Your task to perform on an android device: turn vacation reply on in the gmail app Image 0: 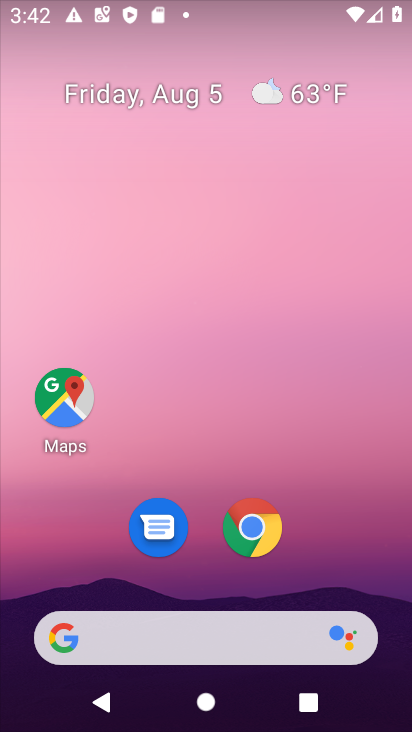
Step 0: drag from (221, 409) to (198, 161)
Your task to perform on an android device: turn vacation reply on in the gmail app Image 1: 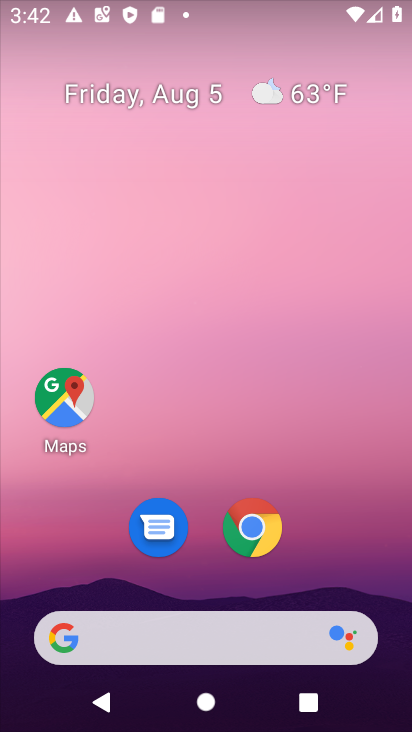
Step 1: drag from (197, 597) to (209, 175)
Your task to perform on an android device: turn vacation reply on in the gmail app Image 2: 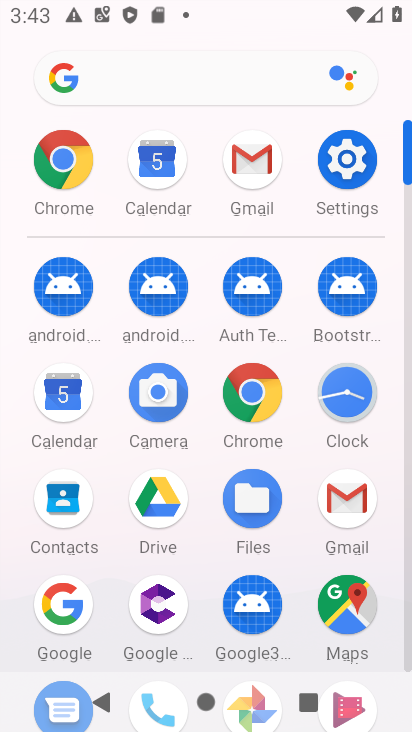
Step 2: click (356, 494)
Your task to perform on an android device: turn vacation reply on in the gmail app Image 3: 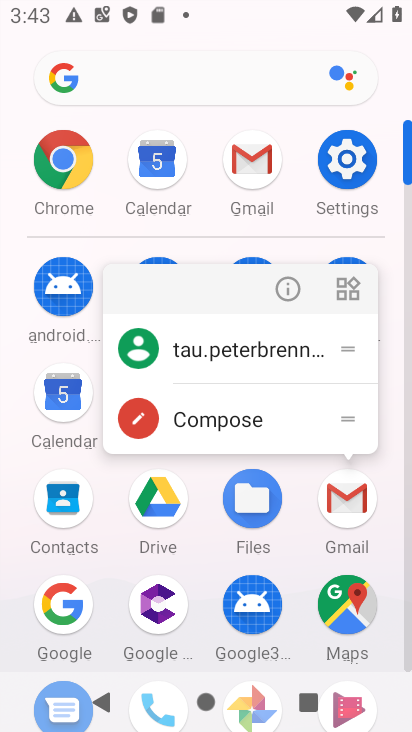
Step 3: click (353, 490)
Your task to perform on an android device: turn vacation reply on in the gmail app Image 4: 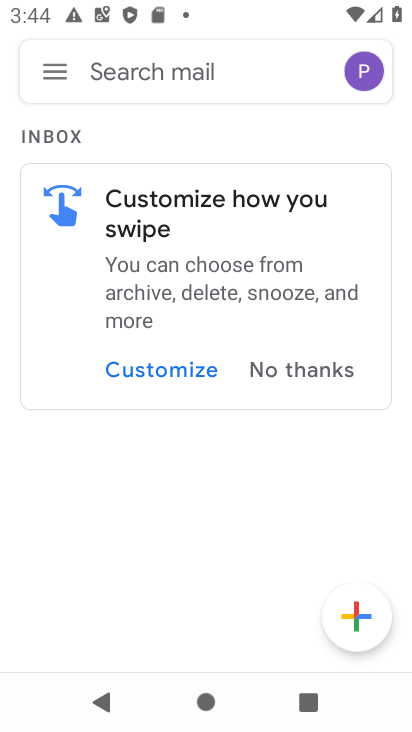
Step 4: click (68, 69)
Your task to perform on an android device: turn vacation reply on in the gmail app Image 5: 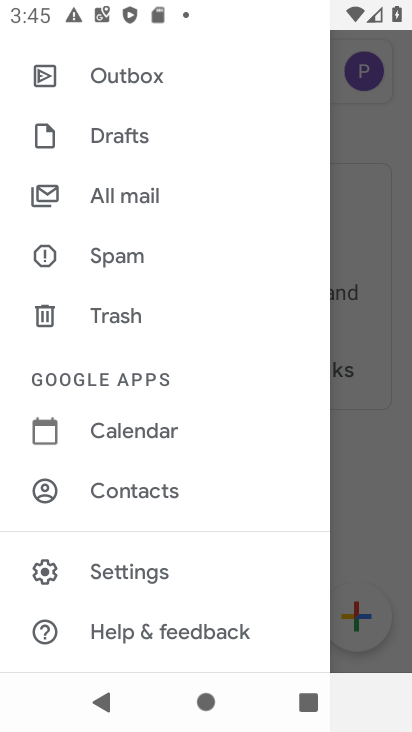
Step 5: click (112, 571)
Your task to perform on an android device: turn vacation reply on in the gmail app Image 6: 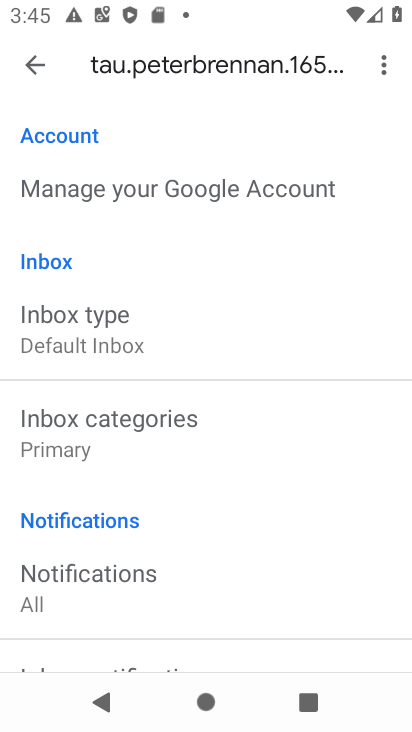
Step 6: drag from (103, 616) to (100, 353)
Your task to perform on an android device: turn vacation reply on in the gmail app Image 7: 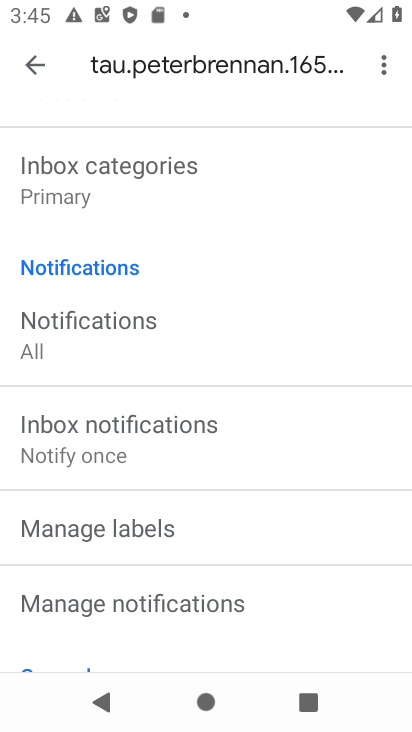
Step 7: drag from (93, 584) to (104, 341)
Your task to perform on an android device: turn vacation reply on in the gmail app Image 8: 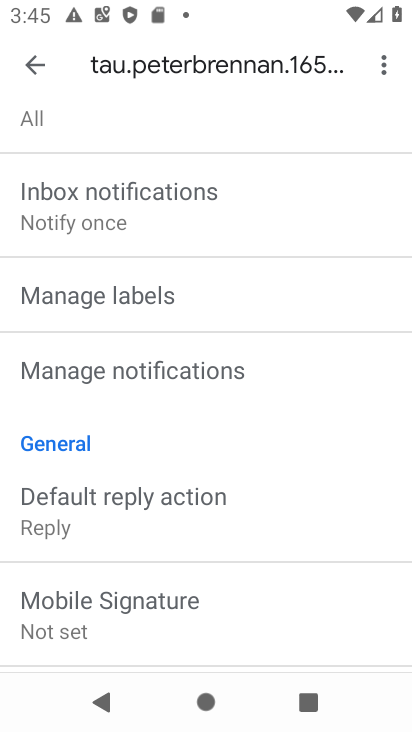
Step 8: drag from (178, 601) to (189, 301)
Your task to perform on an android device: turn vacation reply on in the gmail app Image 9: 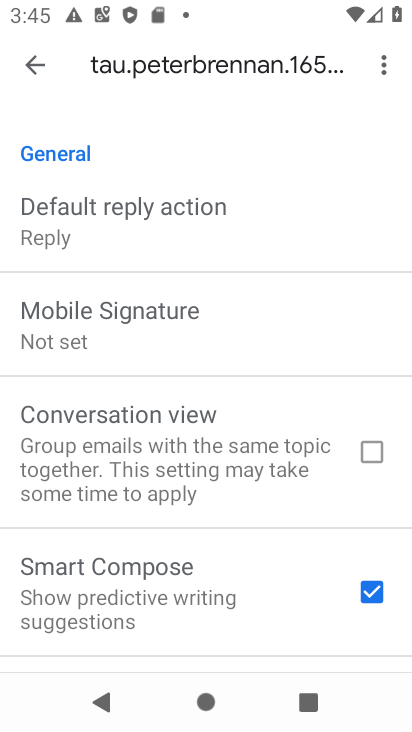
Step 9: drag from (164, 579) to (161, 239)
Your task to perform on an android device: turn vacation reply on in the gmail app Image 10: 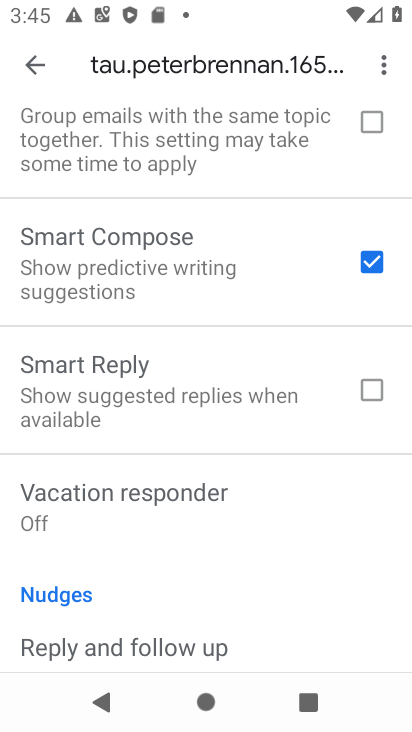
Step 10: click (140, 492)
Your task to perform on an android device: turn vacation reply on in the gmail app Image 11: 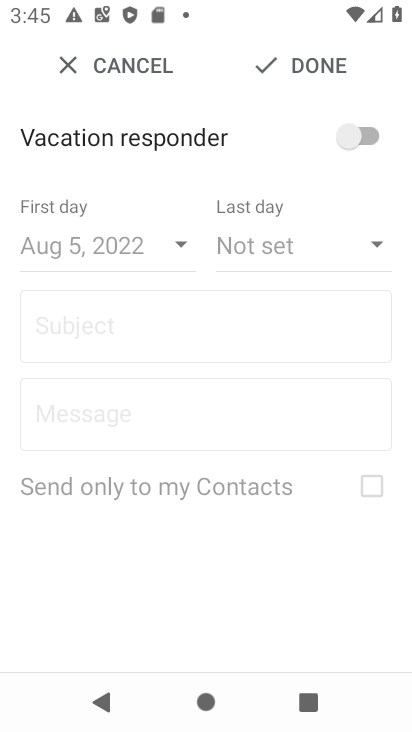
Step 11: click (370, 129)
Your task to perform on an android device: turn vacation reply on in the gmail app Image 12: 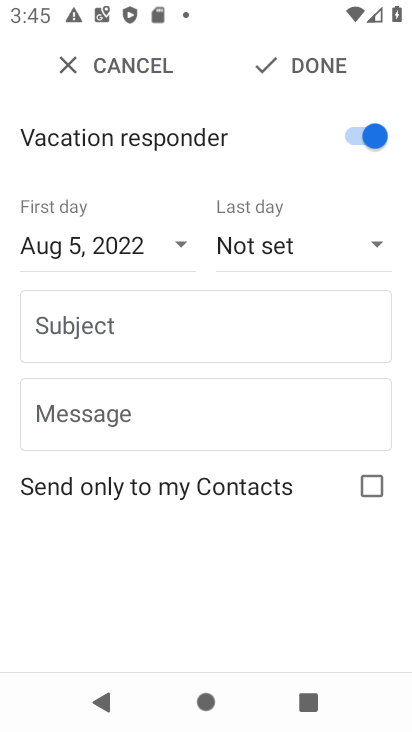
Step 12: task complete